Your task to perform on an android device: Go to Android settings Image 0: 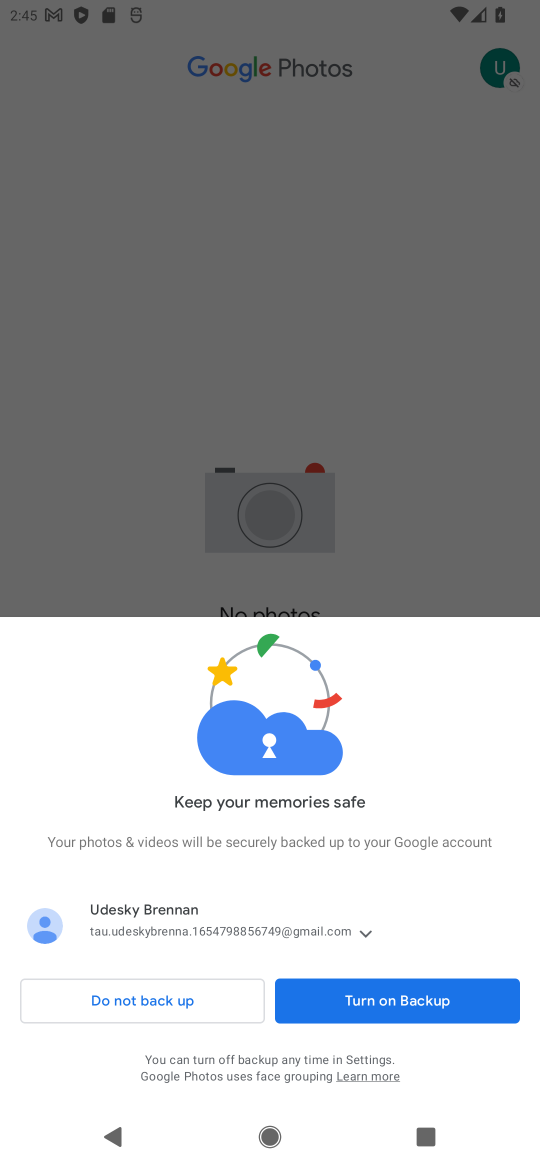
Step 0: press home button
Your task to perform on an android device: Go to Android settings Image 1: 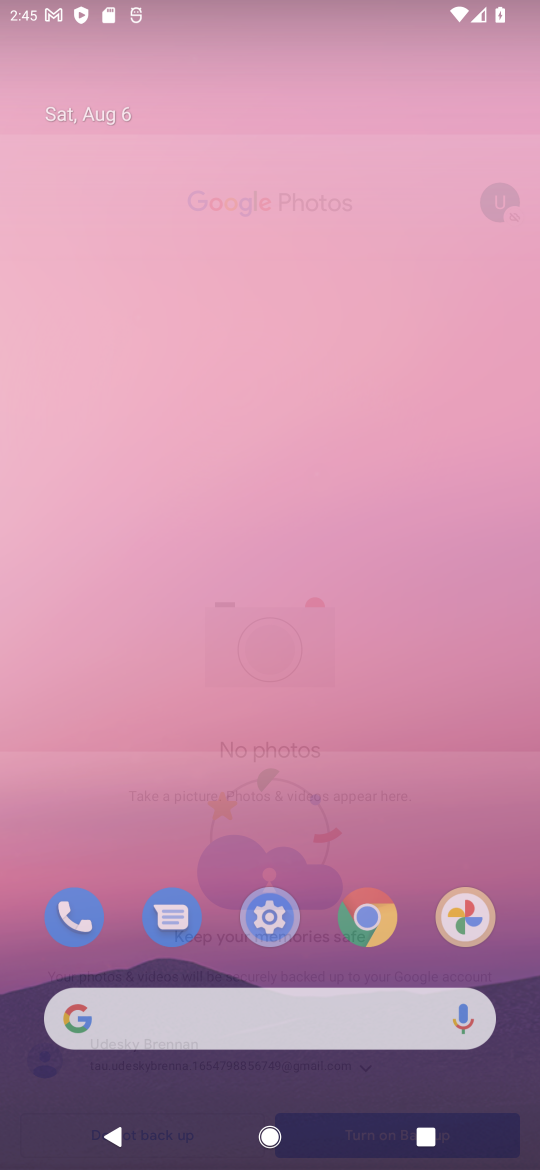
Step 1: drag from (242, 829) to (364, 149)
Your task to perform on an android device: Go to Android settings Image 2: 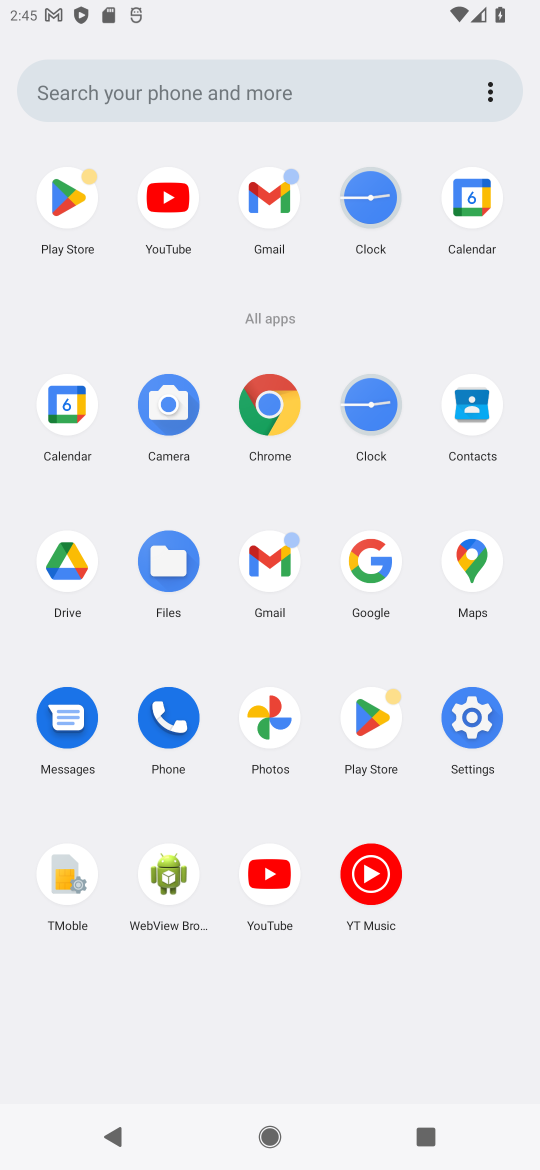
Step 2: click (479, 716)
Your task to perform on an android device: Go to Android settings Image 3: 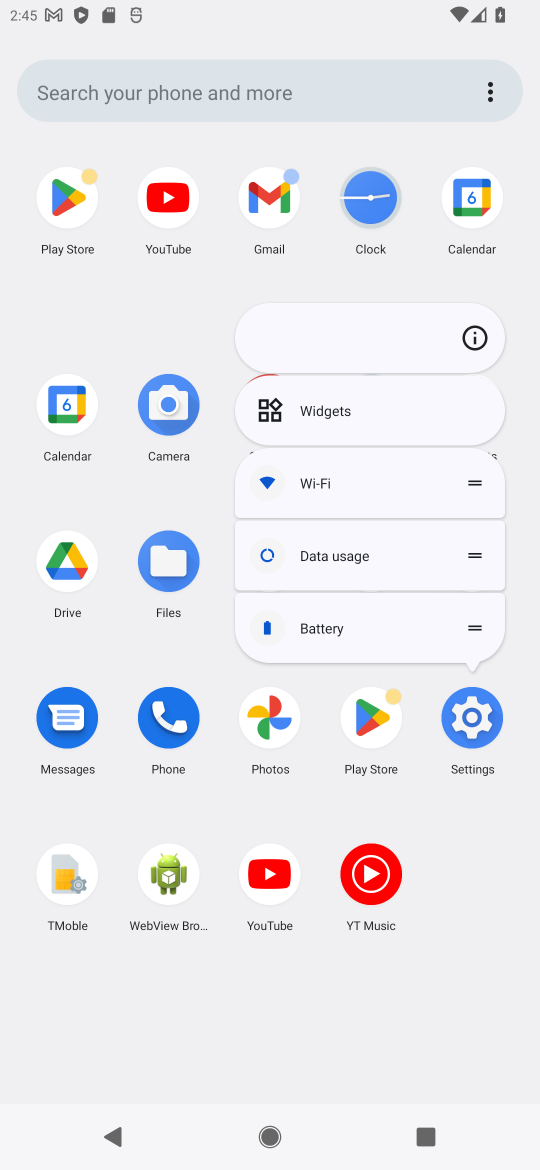
Step 3: click (481, 338)
Your task to perform on an android device: Go to Android settings Image 4: 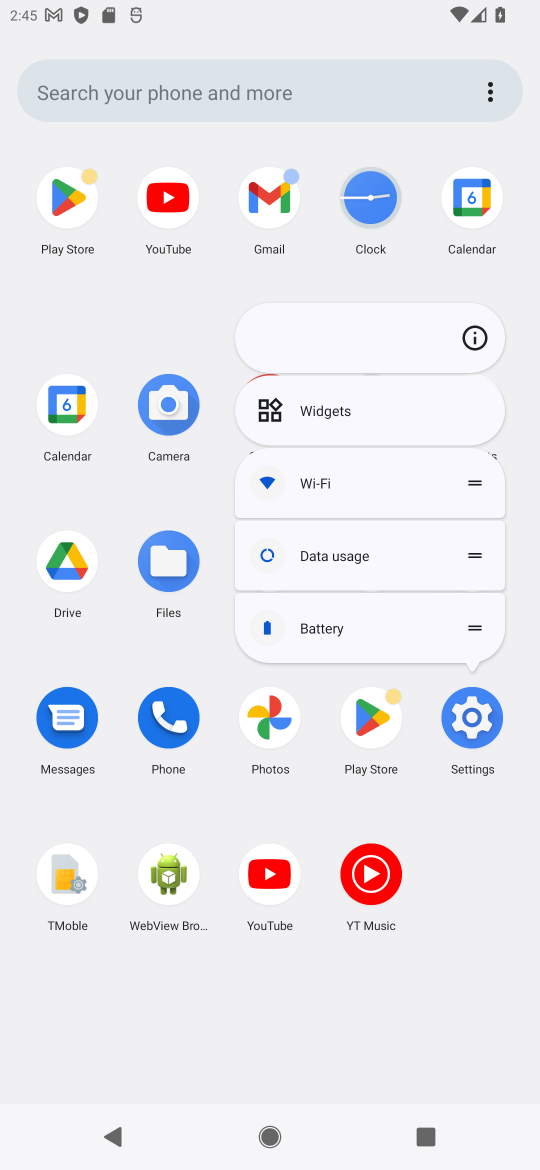
Step 4: click (481, 338)
Your task to perform on an android device: Go to Android settings Image 5: 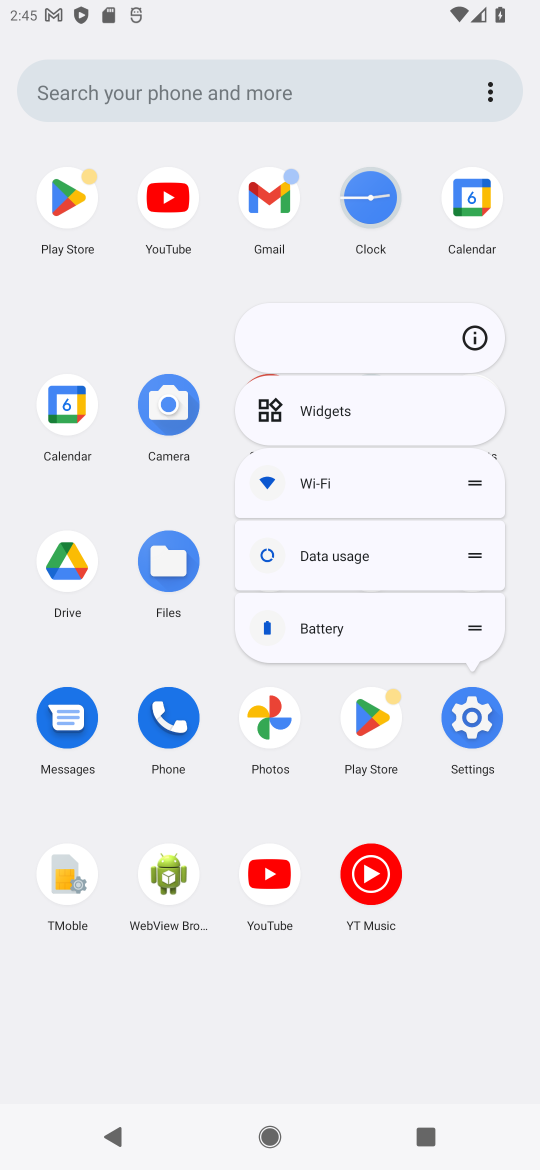
Step 5: click (488, 332)
Your task to perform on an android device: Go to Android settings Image 6: 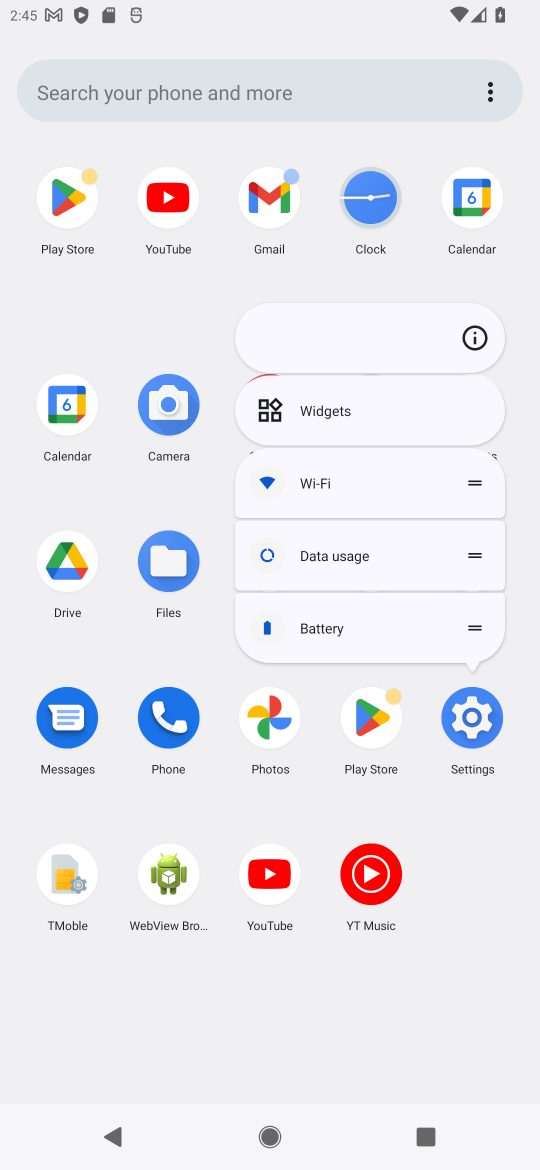
Step 6: click (475, 321)
Your task to perform on an android device: Go to Android settings Image 7: 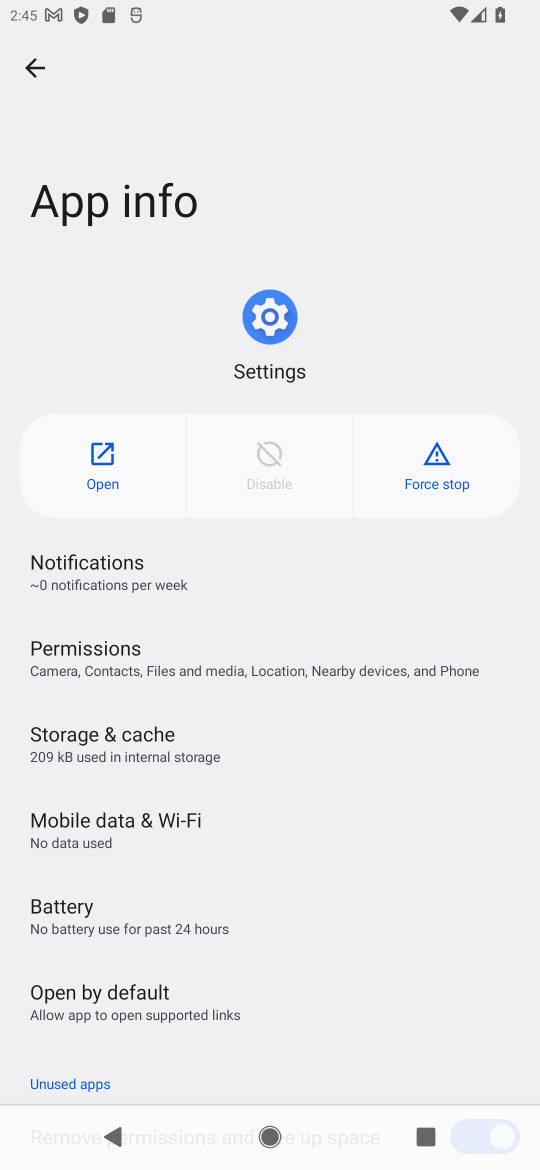
Step 7: click (110, 487)
Your task to perform on an android device: Go to Android settings Image 8: 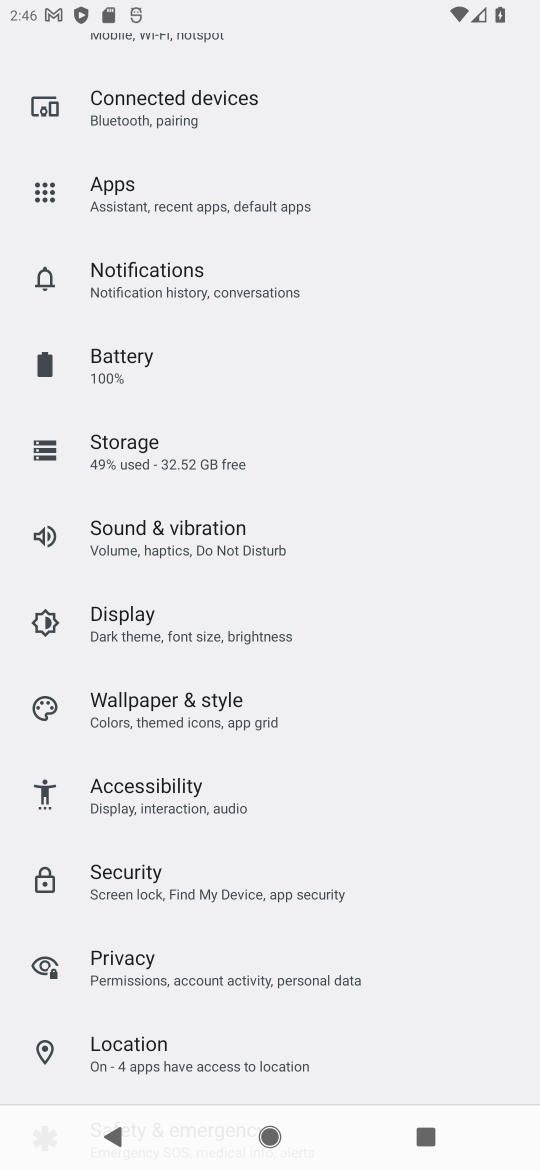
Step 8: drag from (218, 216) to (300, 1100)
Your task to perform on an android device: Go to Android settings Image 9: 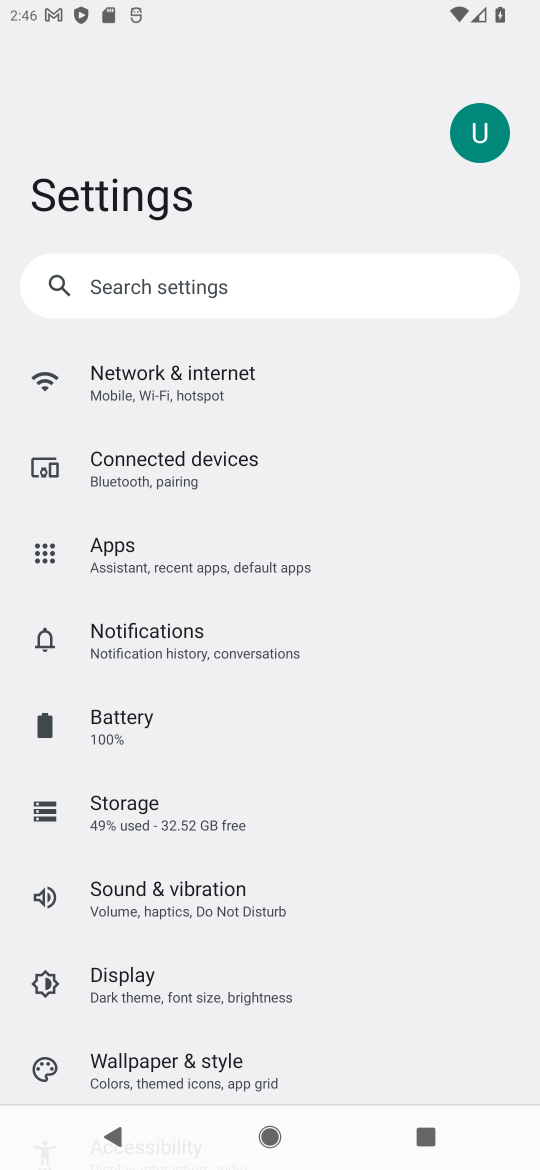
Step 9: drag from (230, 820) to (313, 164)
Your task to perform on an android device: Go to Android settings Image 10: 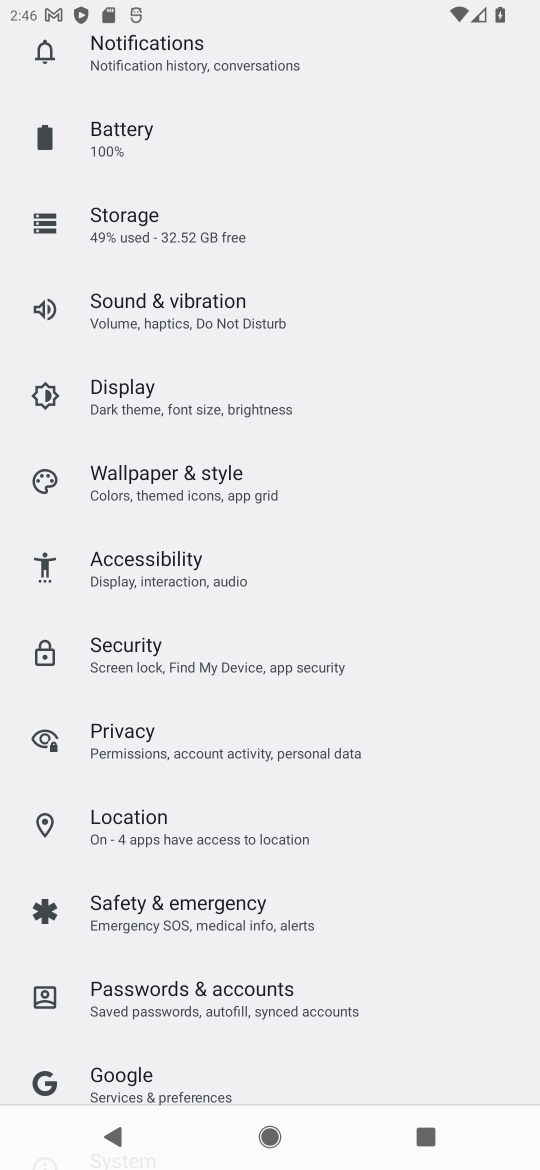
Step 10: drag from (294, 1008) to (387, 16)
Your task to perform on an android device: Go to Android settings Image 11: 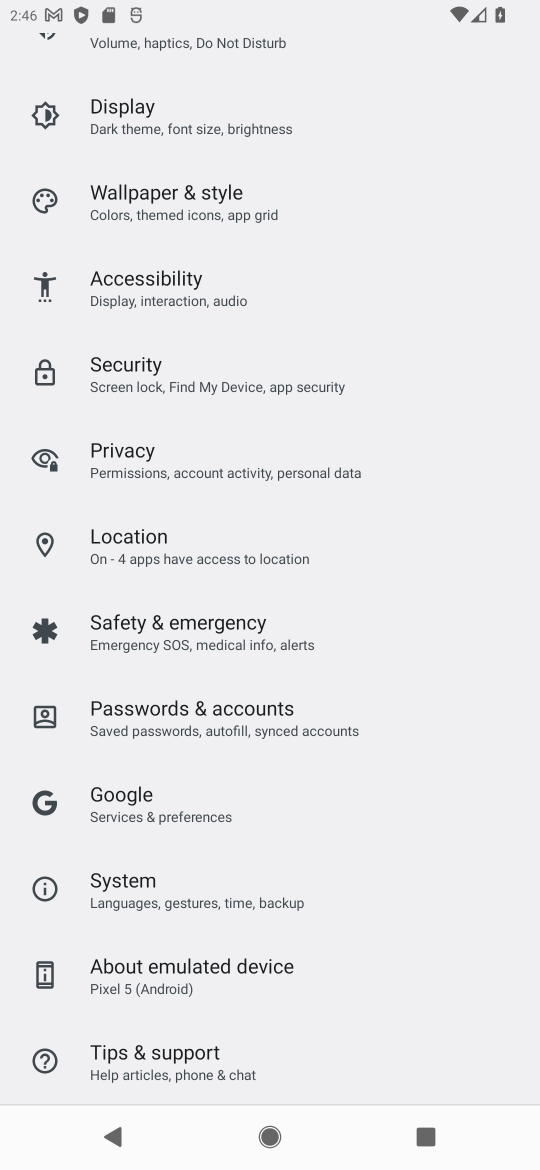
Step 11: drag from (241, 860) to (303, 252)
Your task to perform on an android device: Go to Android settings Image 12: 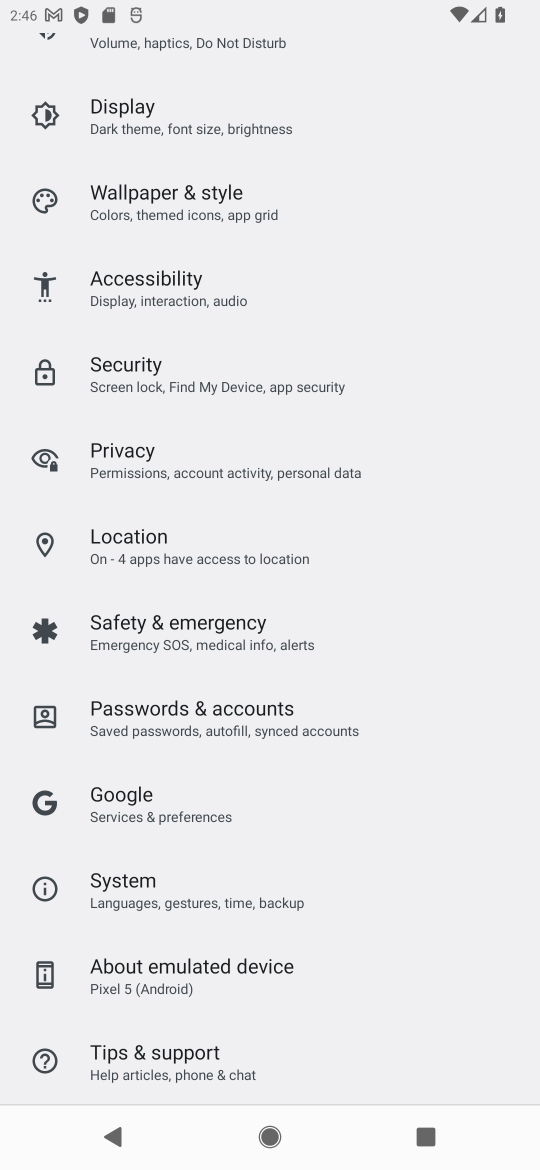
Step 12: click (260, 992)
Your task to perform on an android device: Go to Android settings Image 13: 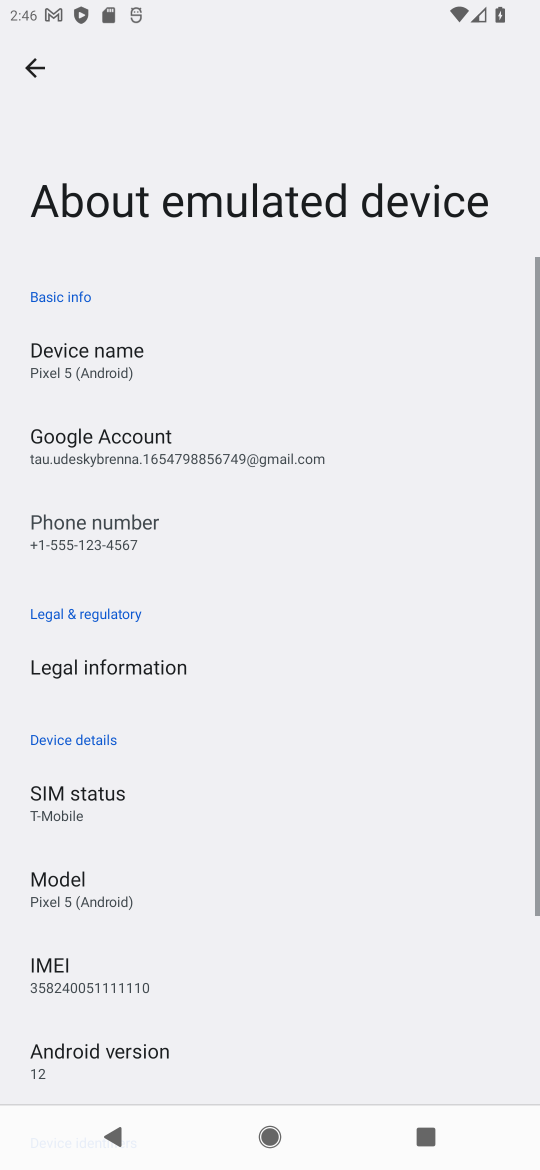
Step 13: drag from (190, 927) to (272, 400)
Your task to perform on an android device: Go to Android settings Image 14: 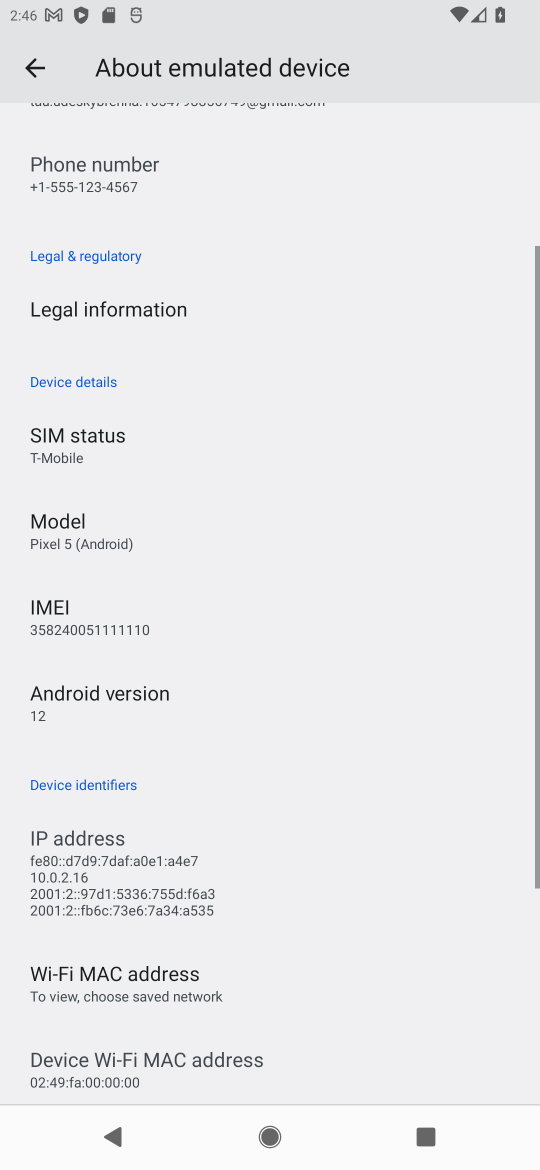
Step 14: click (202, 703)
Your task to perform on an android device: Go to Android settings Image 15: 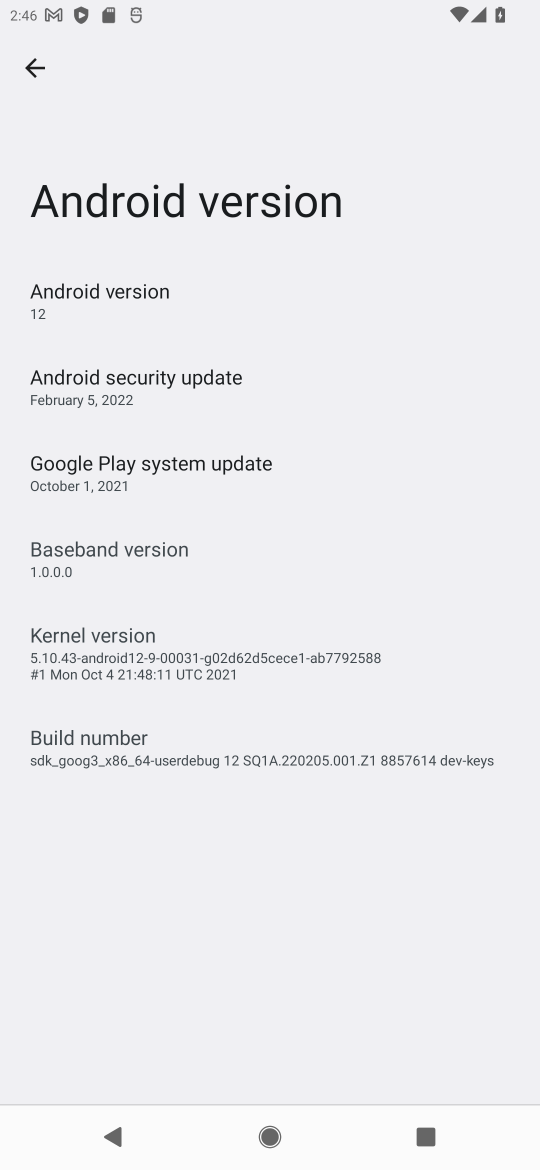
Step 15: task complete